Your task to perform on an android device: toggle translation in the chrome app Image 0: 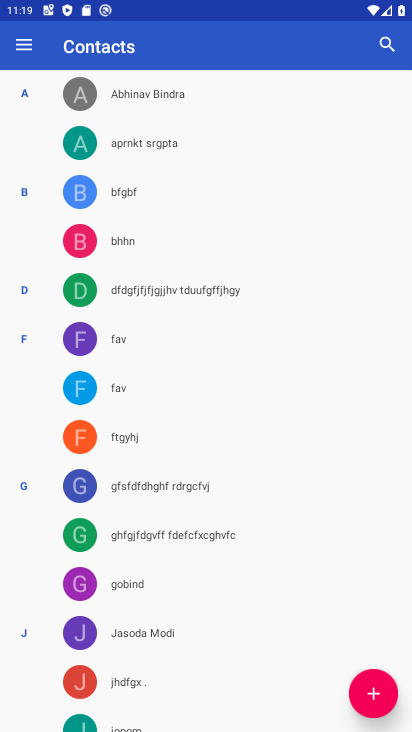
Step 0: press home button
Your task to perform on an android device: toggle translation in the chrome app Image 1: 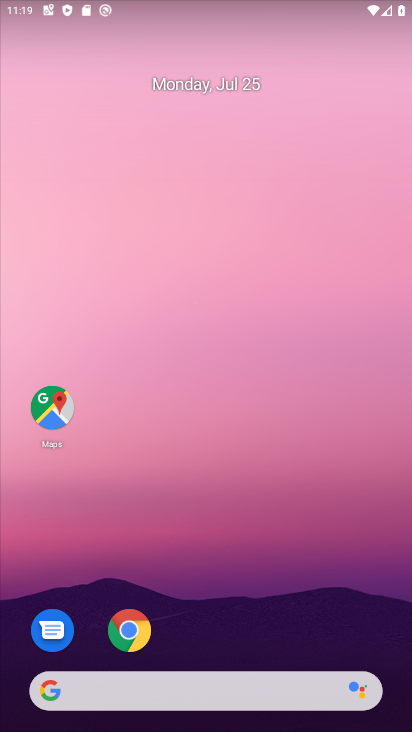
Step 1: click (130, 628)
Your task to perform on an android device: toggle translation in the chrome app Image 2: 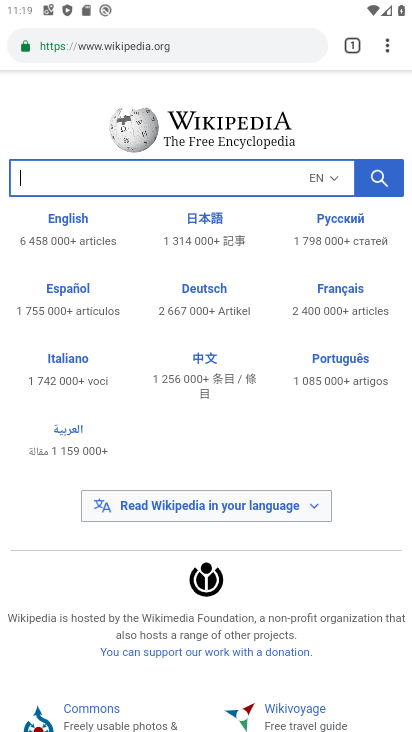
Step 2: click (387, 38)
Your task to perform on an android device: toggle translation in the chrome app Image 3: 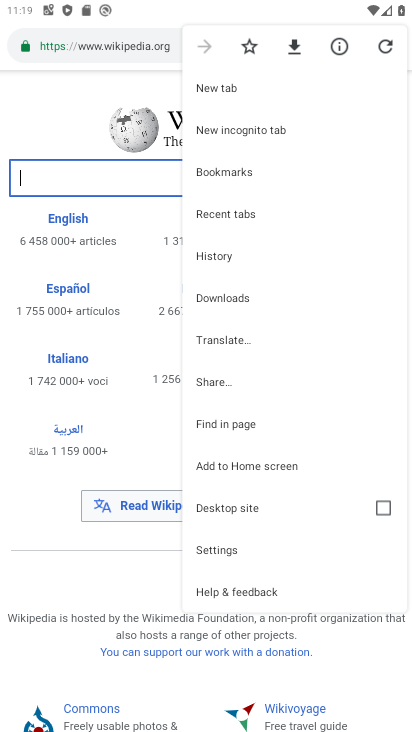
Step 3: click (206, 548)
Your task to perform on an android device: toggle translation in the chrome app Image 4: 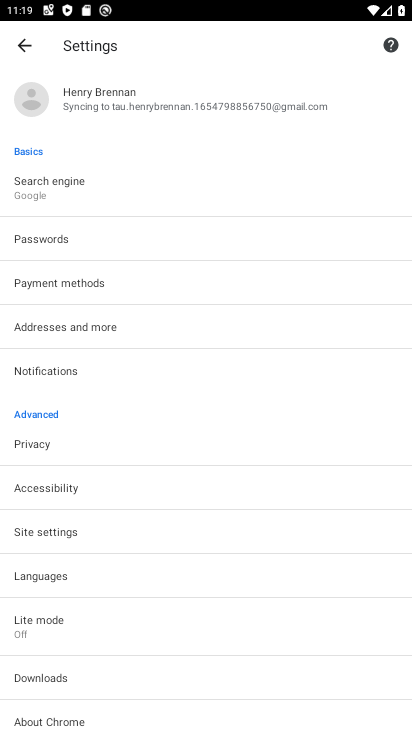
Step 4: click (84, 573)
Your task to perform on an android device: toggle translation in the chrome app Image 5: 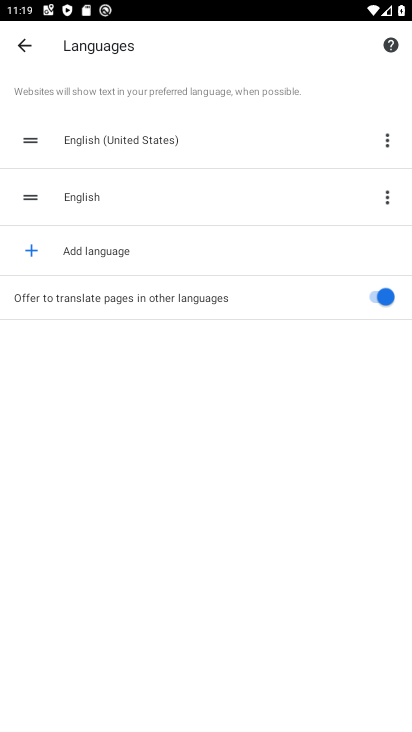
Step 5: click (379, 294)
Your task to perform on an android device: toggle translation in the chrome app Image 6: 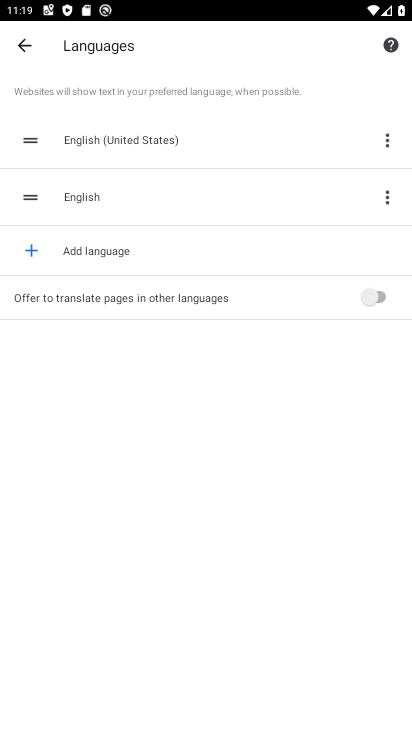
Step 6: task complete